Your task to perform on an android device: change text size in settings app Image 0: 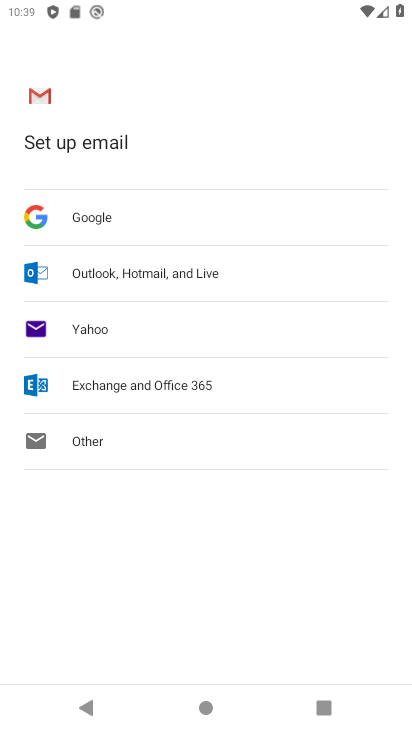
Step 0: click (246, 354)
Your task to perform on an android device: change text size in settings app Image 1: 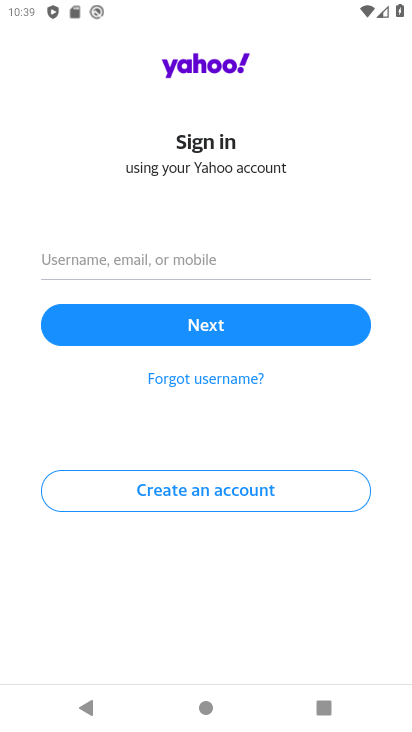
Step 1: press home button
Your task to perform on an android device: change text size in settings app Image 2: 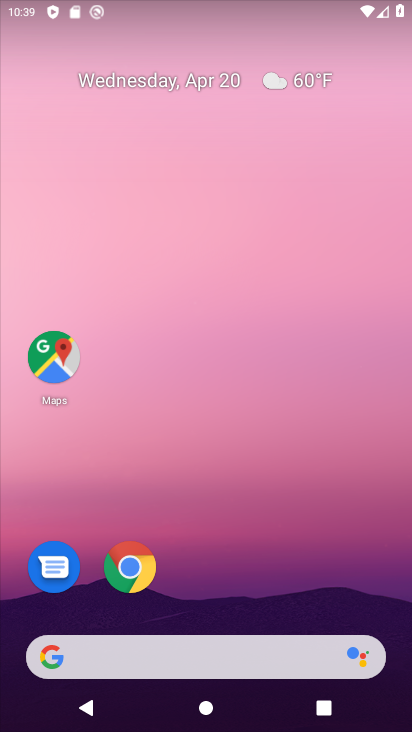
Step 2: drag from (283, 541) to (335, 0)
Your task to perform on an android device: change text size in settings app Image 3: 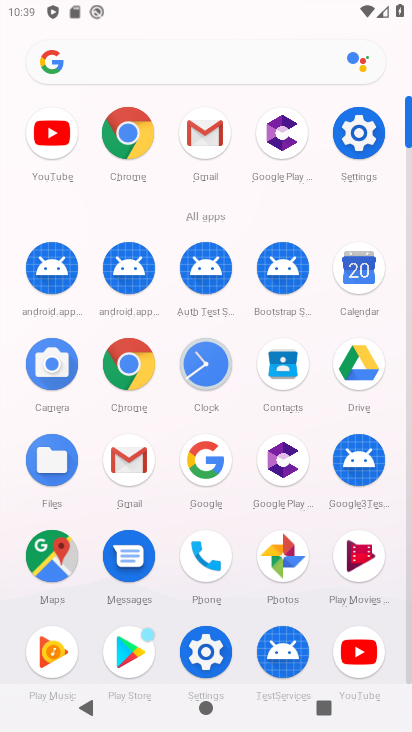
Step 3: click (361, 159)
Your task to perform on an android device: change text size in settings app Image 4: 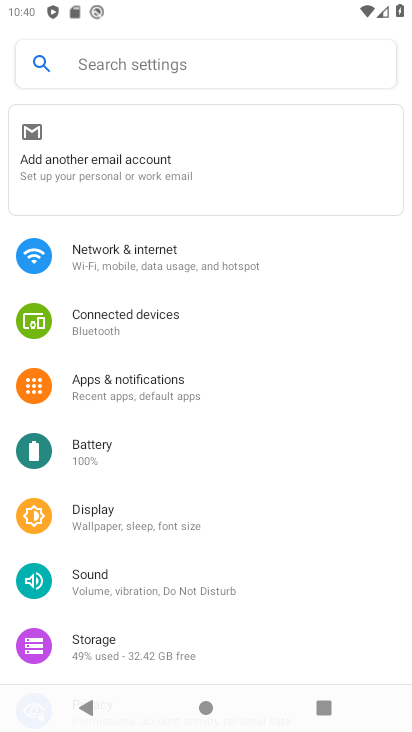
Step 4: drag from (206, 582) to (161, 289)
Your task to perform on an android device: change text size in settings app Image 5: 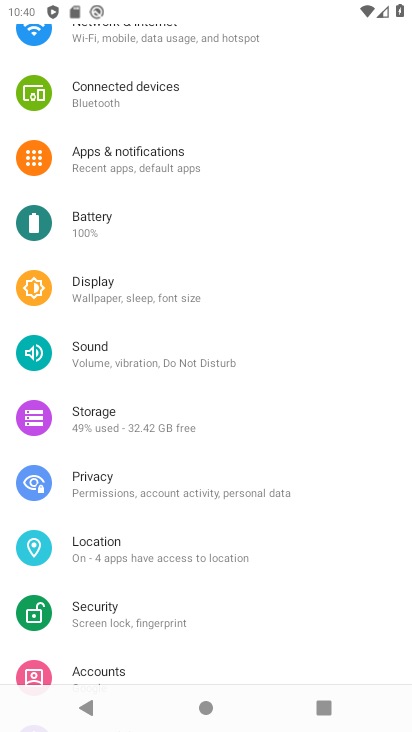
Step 5: click (108, 291)
Your task to perform on an android device: change text size in settings app Image 6: 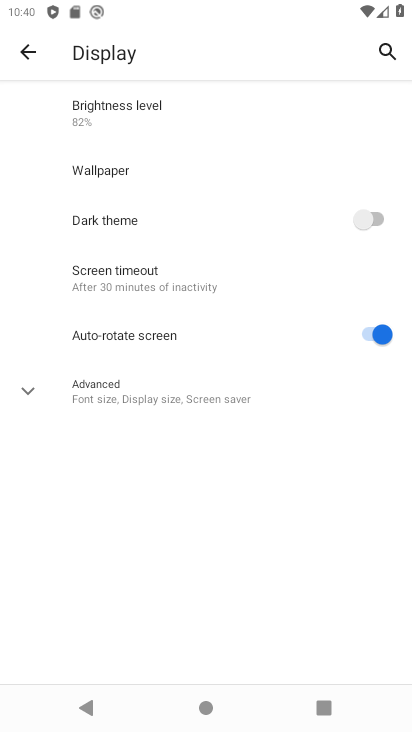
Step 6: click (101, 398)
Your task to perform on an android device: change text size in settings app Image 7: 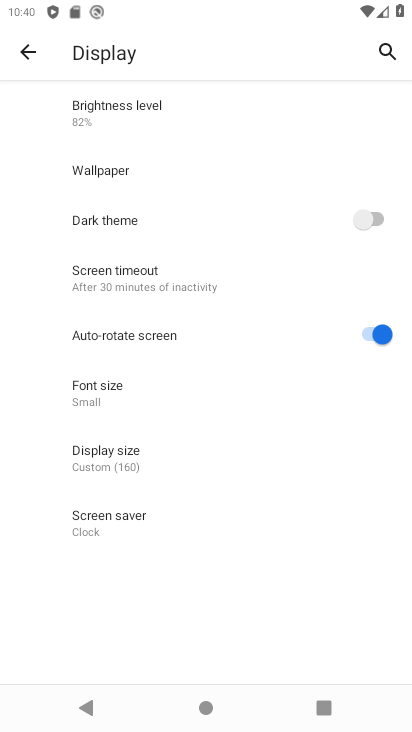
Step 7: click (129, 388)
Your task to perform on an android device: change text size in settings app Image 8: 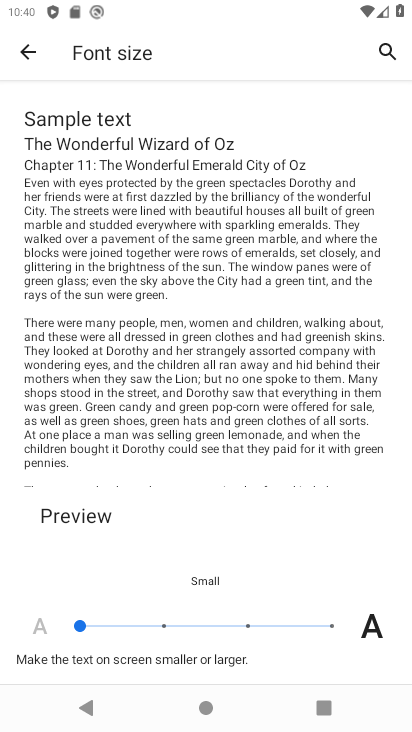
Step 8: task complete